Your task to perform on an android device: Is it going to rain today? Image 0: 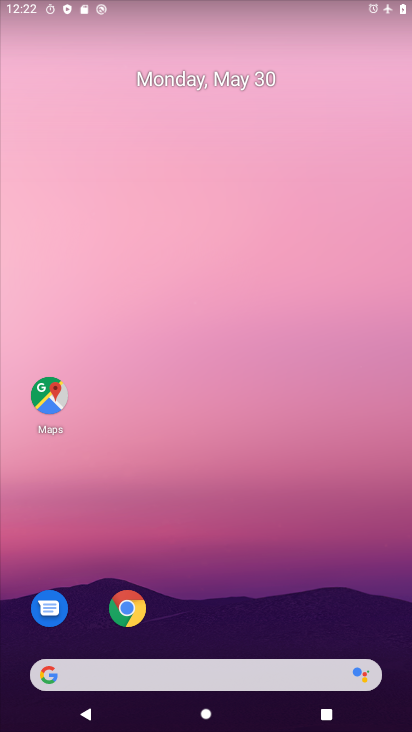
Step 0: click (195, 668)
Your task to perform on an android device: Is it going to rain today? Image 1: 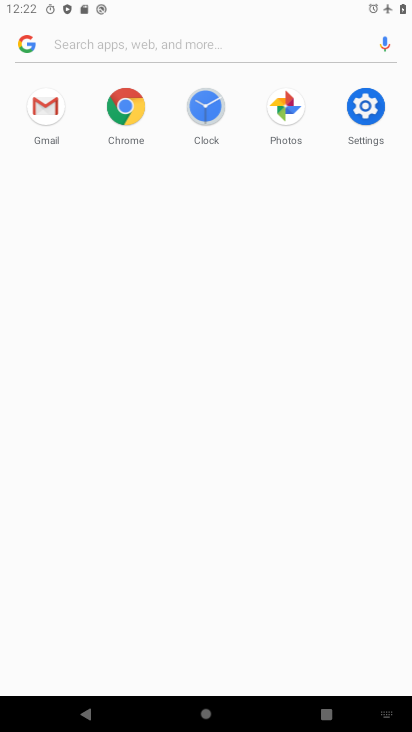
Step 1: task complete